Your task to perform on an android device: What is the capital of Japan? Image 0: 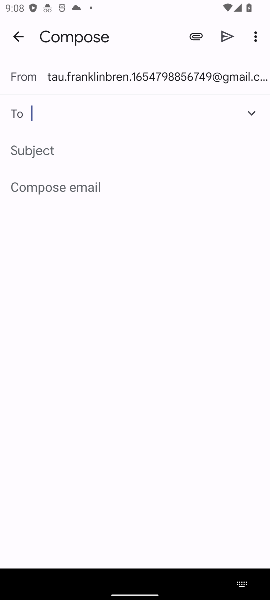
Step 0: press home button
Your task to perform on an android device: What is the capital of Japan? Image 1: 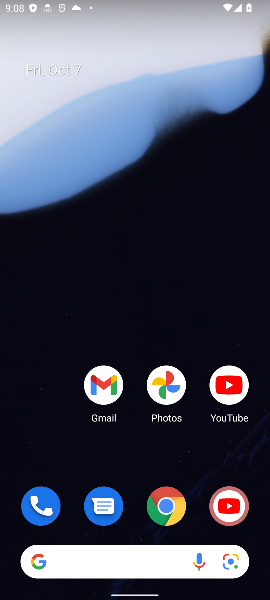
Step 1: click (168, 509)
Your task to perform on an android device: What is the capital of Japan? Image 2: 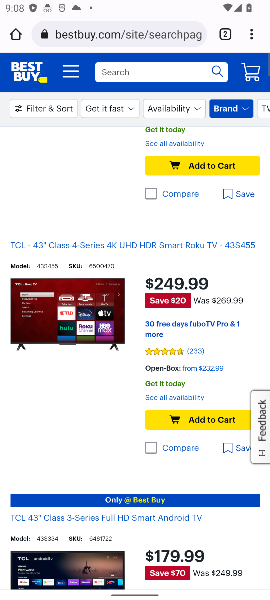
Step 2: click (130, 34)
Your task to perform on an android device: What is the capital of Japan? Image 3: 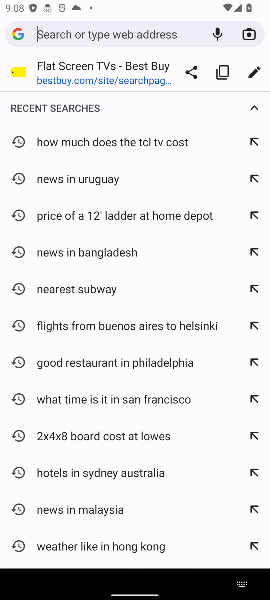
Step 3: type "capital of Japan"
Your task to perform on an android device: What is the capital of Japan? Image 4: 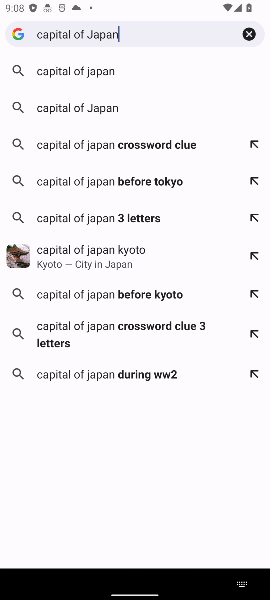
Step 4: click (91, 67)
Your task to perform on an android device: What is the capital of Japan? Image 5: 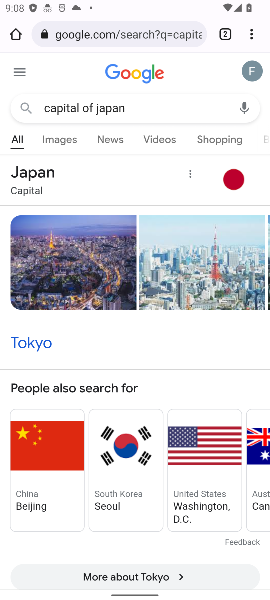
Step 5: task complete